Your task to perform on an android device: Open Chrome and go to the settings page Image 0: 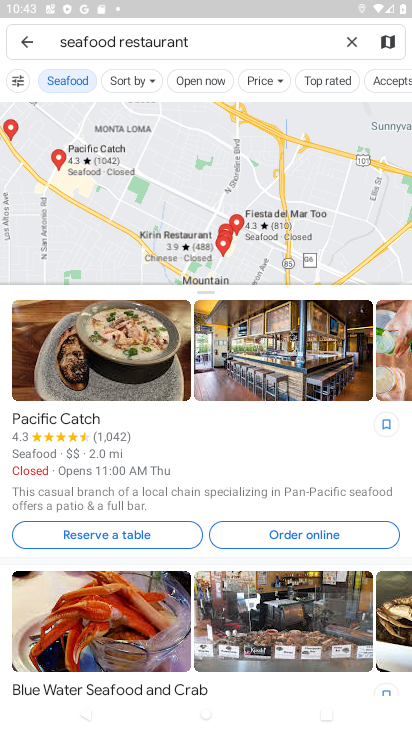
Step 0: press home button
Your task to perform on an android device: Open Chrome and go to the settings page Image 1: 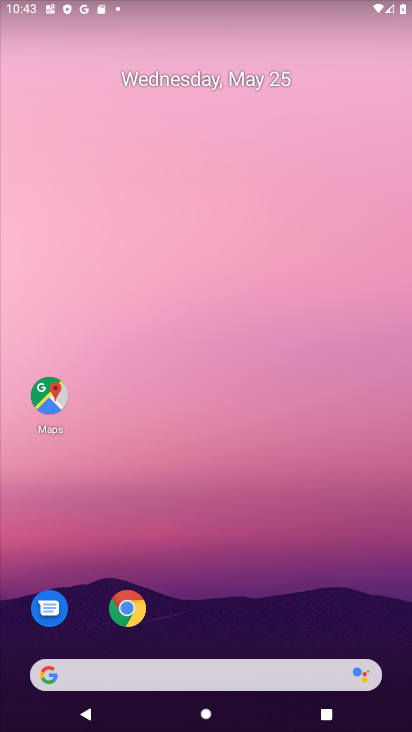
Step 1: click (124, 616)
Your task to perform on an android device: Open Chrome and go to the settings page Image 2: 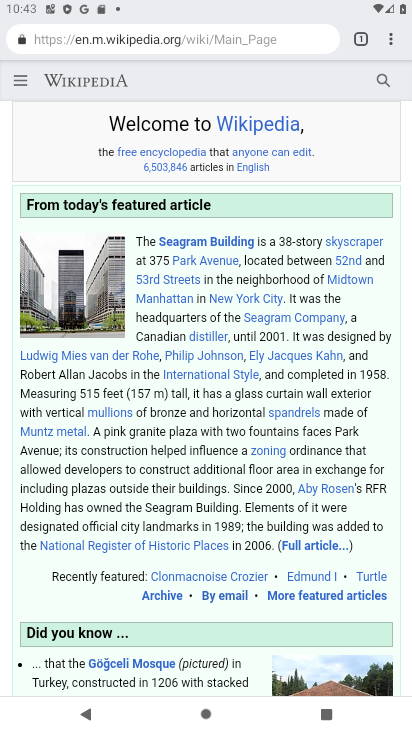
Step 2: click (388, 42)
Your task to perform on an android device: Open Chrome and go to the settings page Image 3: 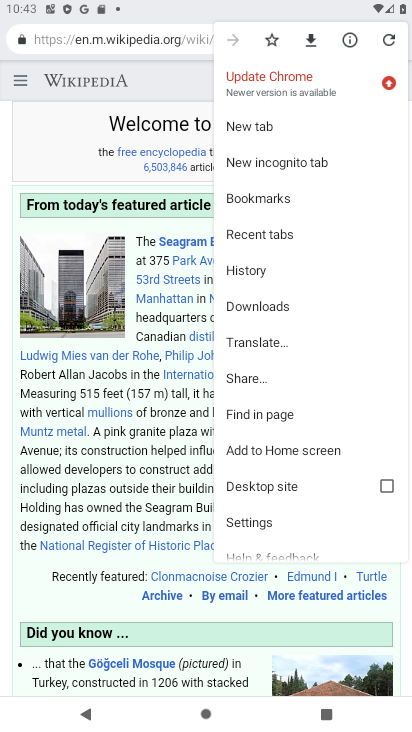
Step 3: click (259, 521)
Your task to perform on an android device: Open Chrome and go to the settings page Image 4: 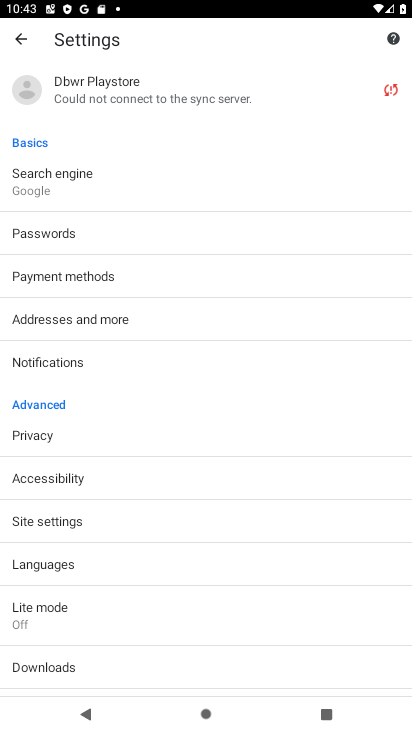
Step 4: task complete